Your task to perform on an android device: refresh tabs in the chrome app Image 0: 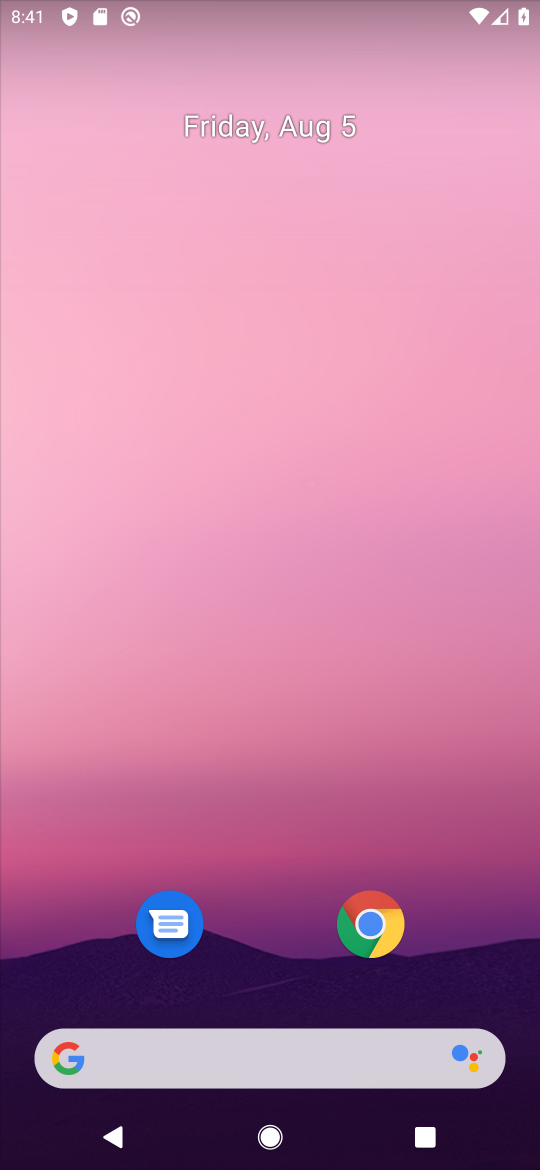
Step 0: drag from (235, 819) to (272, 288)
Your task to perform on an android device: refresh tabs in the chrome app Image 1: 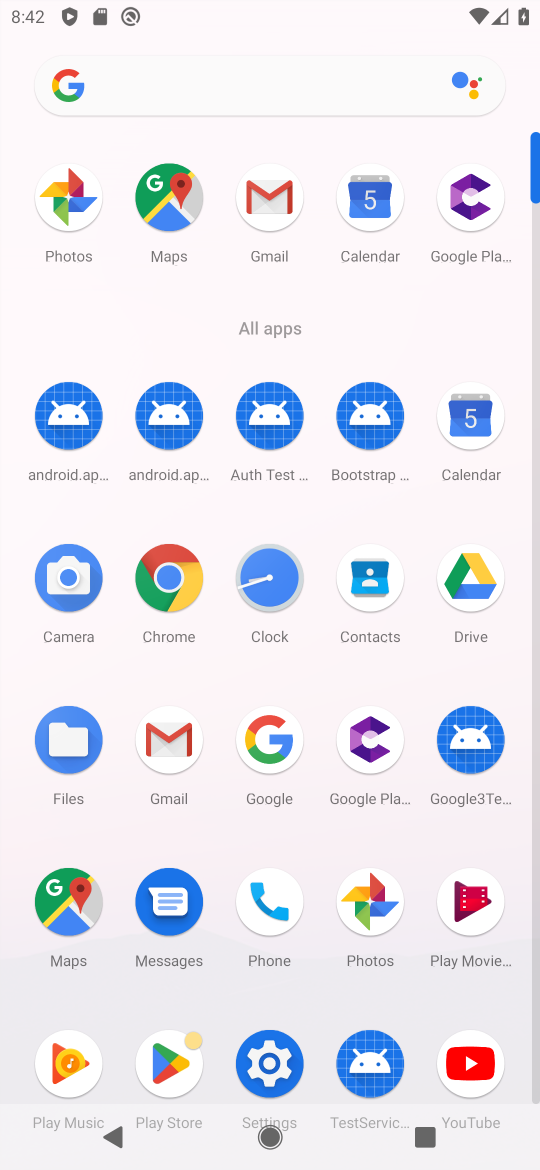
Step 1: click (167, 601)
Your task to perform on an android device: refresh tabs in the chrome app Image 2: 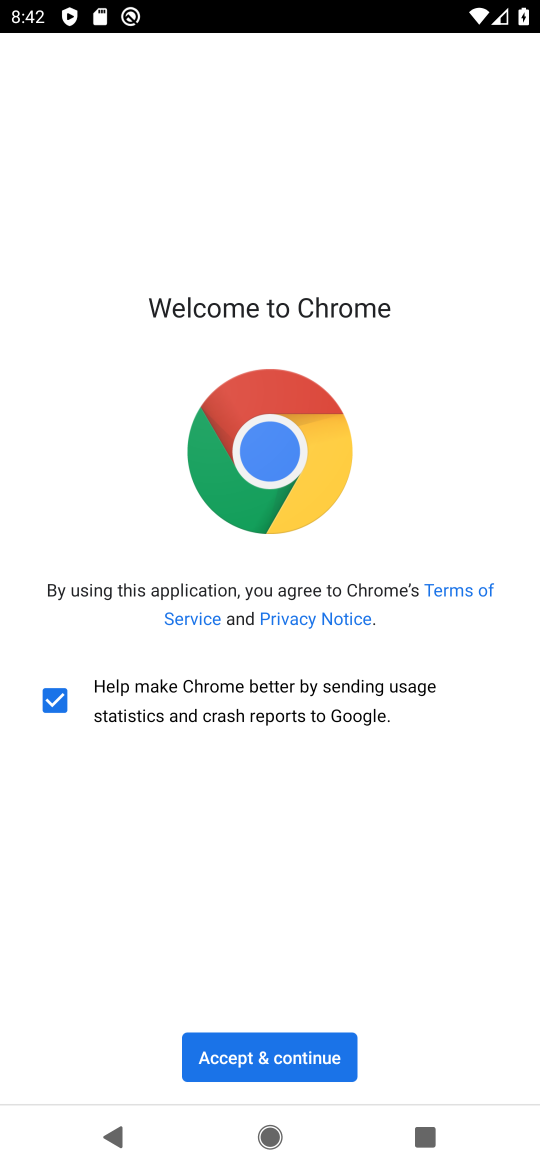
Step 2: click (289, 1067)
Your task to perform on an android device: refresh tabs in the chrome app Image 3: 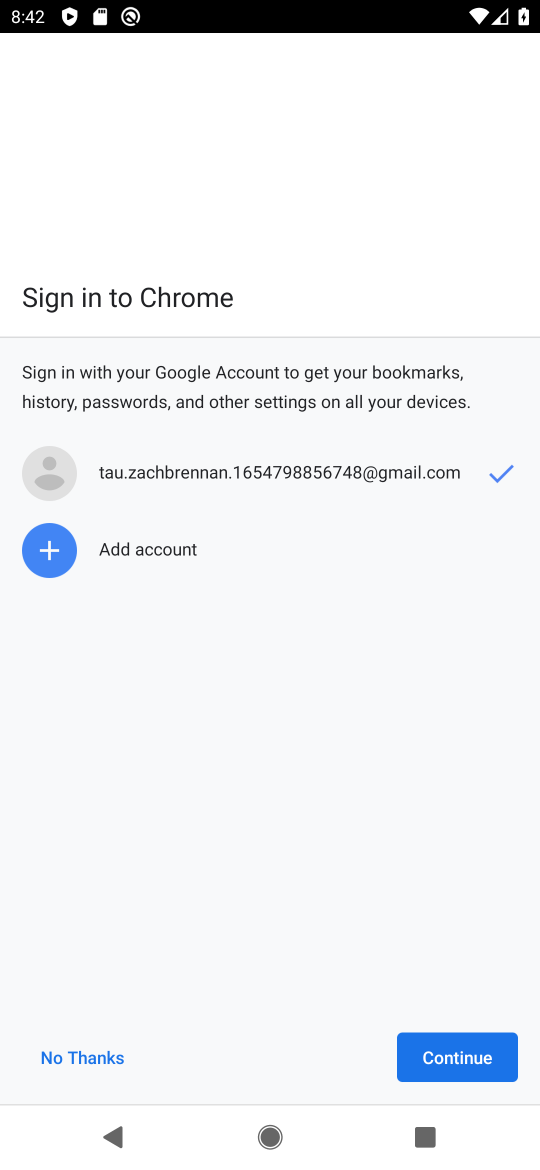
Step 3: click (452, 1068)
Your task to perform on an android device: refresh tabs in the chrome app Image 4: 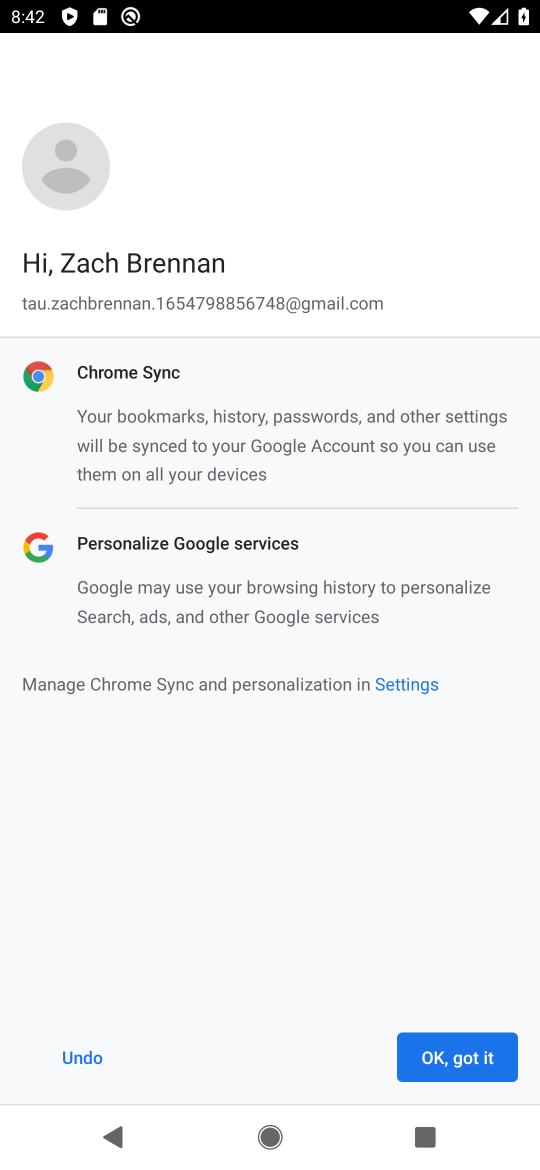
Step 4: click (452, 1068)
Your task to perform on an android device: refresh tabs in the chrome app Image 5: 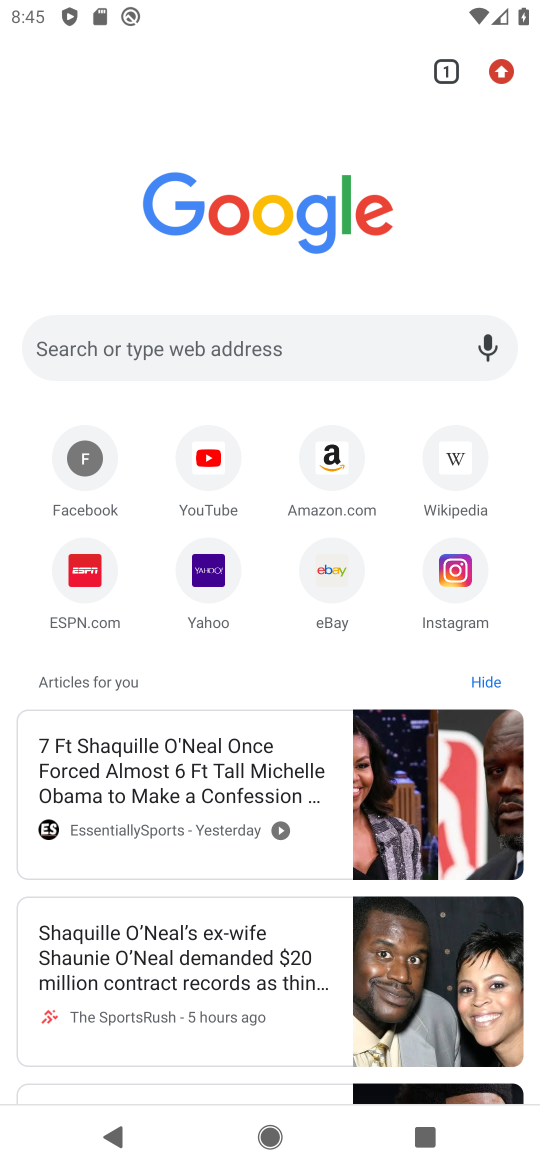
Step 5: click (520, 76)
Your task to perform on an android device: refresh tabs in the chrome app Image 6: 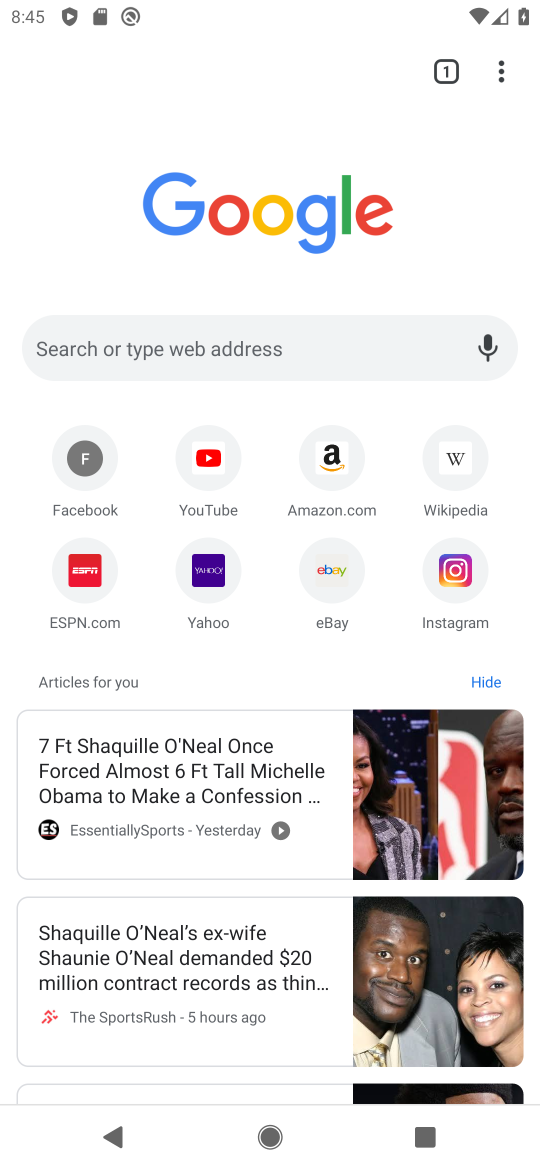
Step 6: click (487, 72)
Your task to perform on an android device: refresh tabs in the chrome app Image 7: 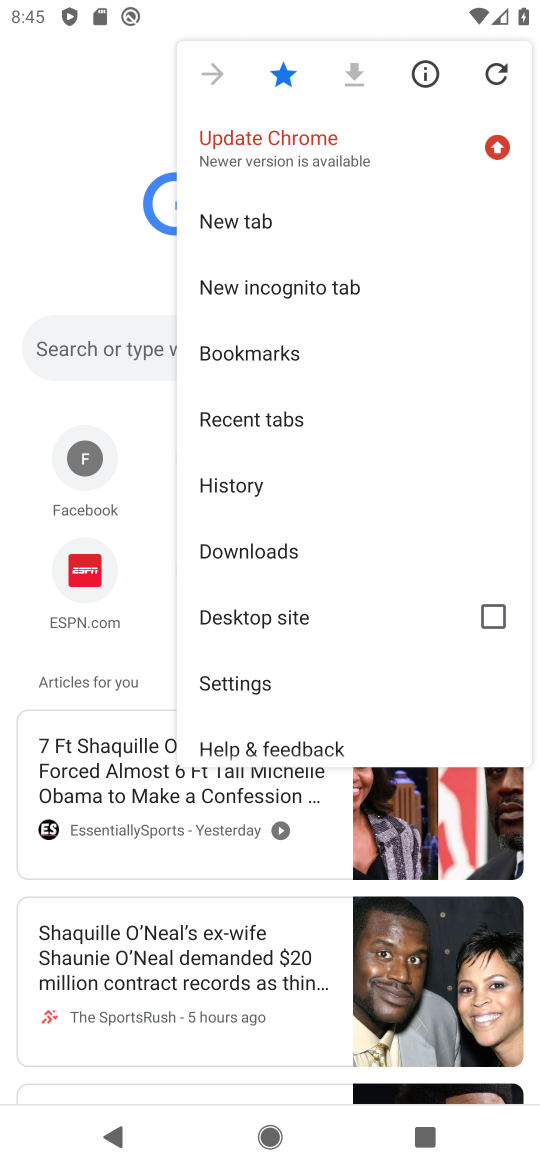
Step 7: click (490, 70)
Your task to perform on an android device: refresh tabs in the chrome app Image 8: 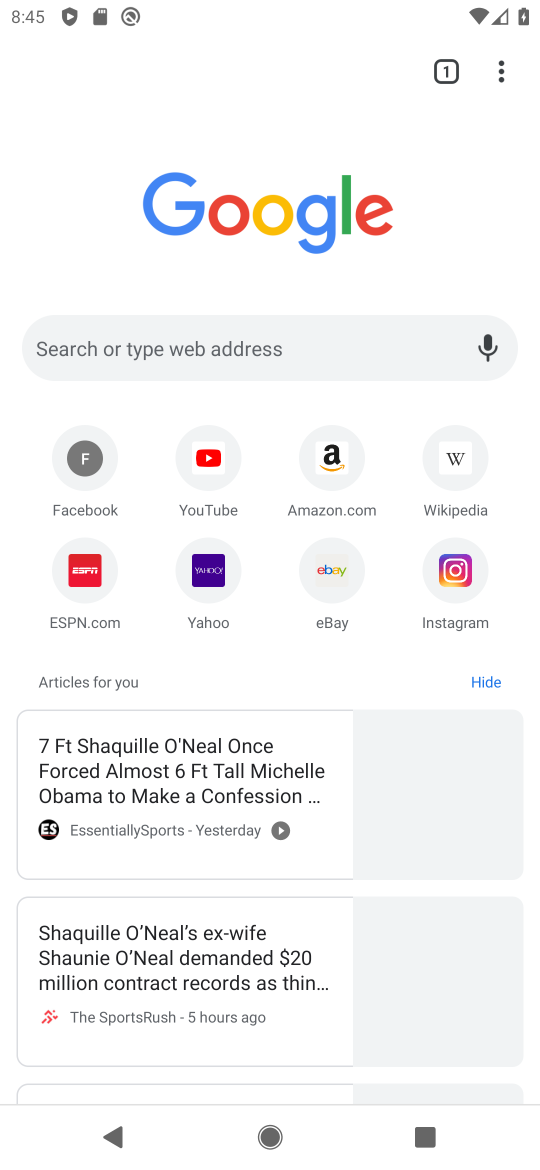
Step 8: task complete